Your task to perform on an android device: allow cookies in the chrome app Image 0: 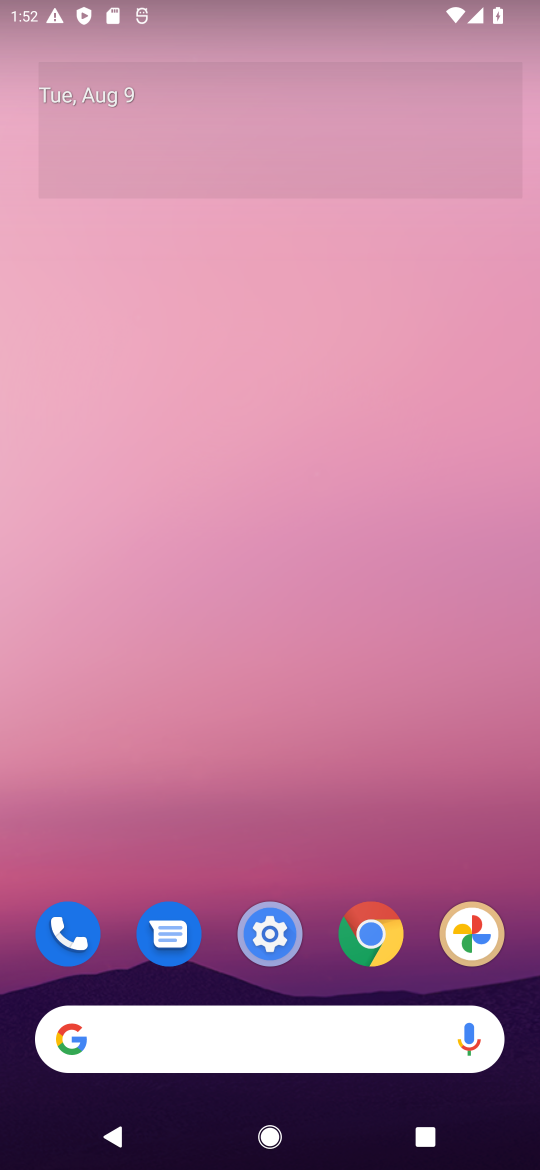
Step 0: click (355, 932)
Your task to perform on an android device: allow cookies in the chrome app Image 1: 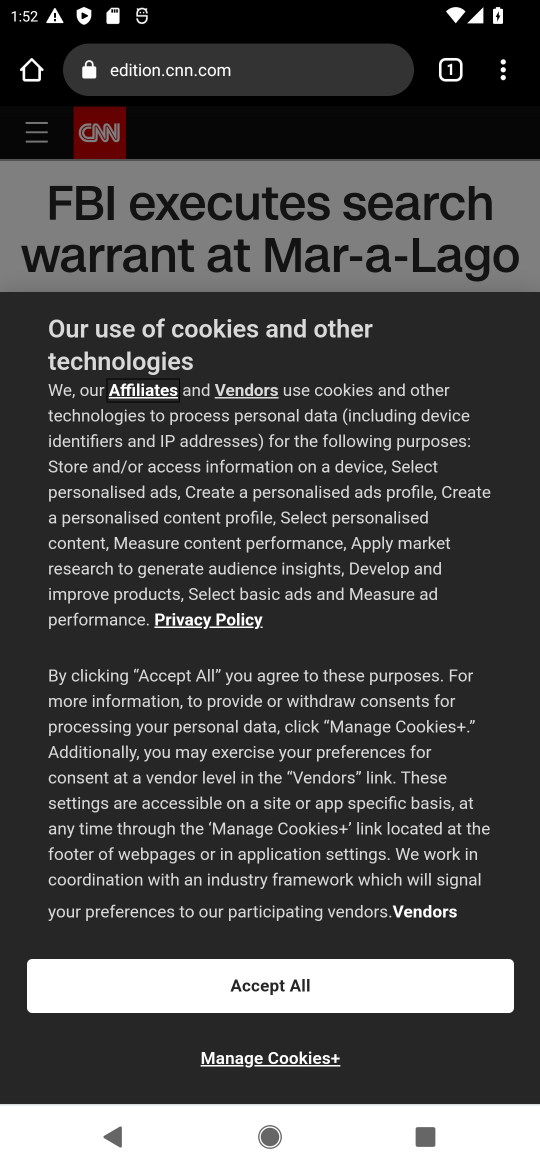
Step 1: click (514, 83)
Your task to perform on an android device: allow cookies in the chrome app Image 2: 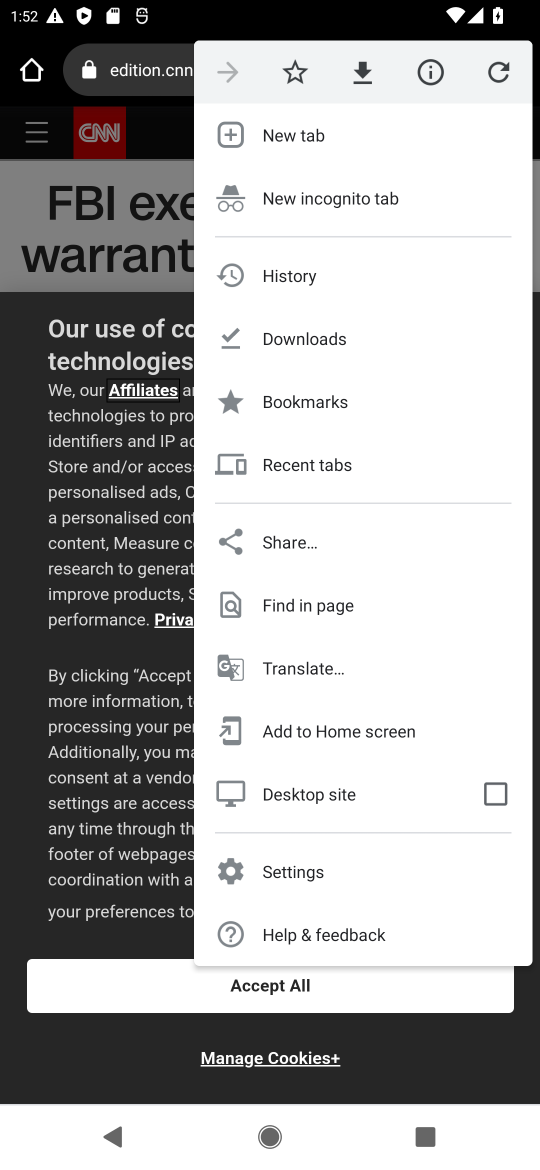
Step 2: click (306, 850)
Your task to perform on an android device: allow cookies in the chrome app Image 3: 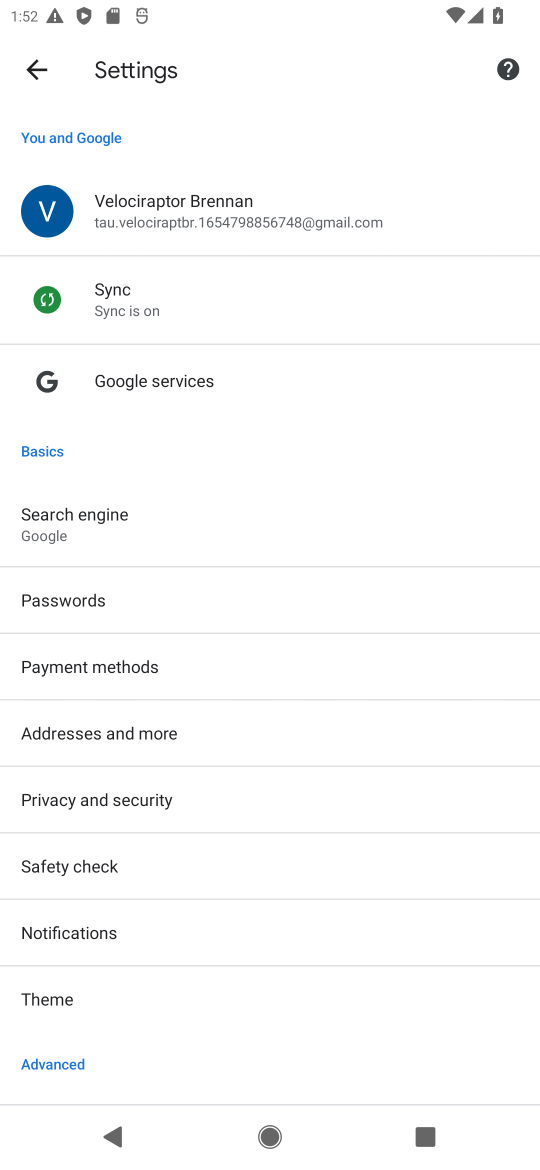
Step 3: drag from (195, 947) to (195, 523)
Your task to perform on an android device: allow cookies in the chrome app Image 4: 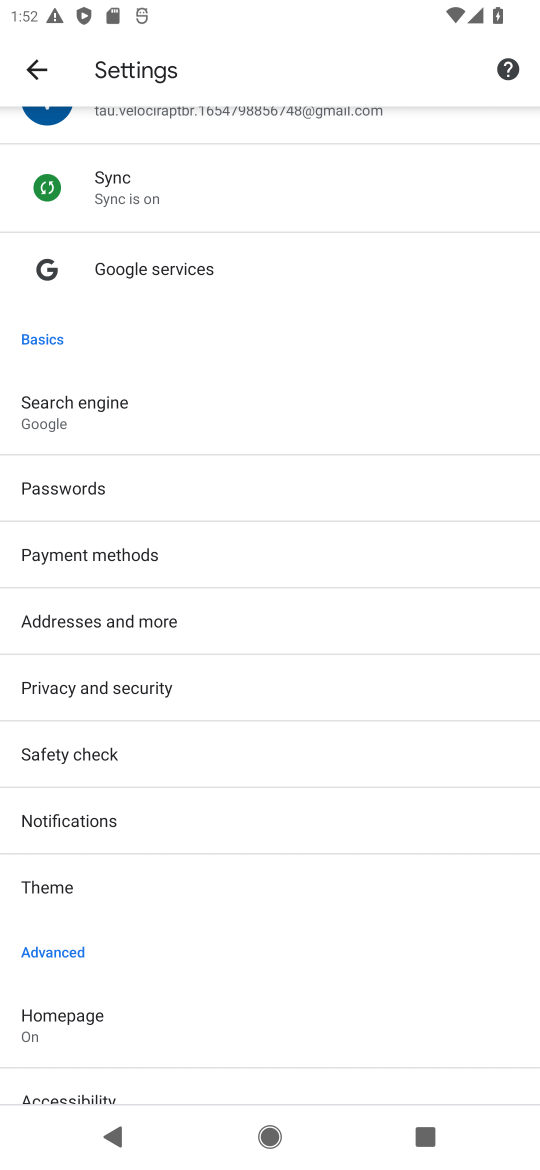
Step 4: drag from (185, 1033) to (220, 588)
Your task to perform on an android device: allow cookies in the chrome app Image 5: 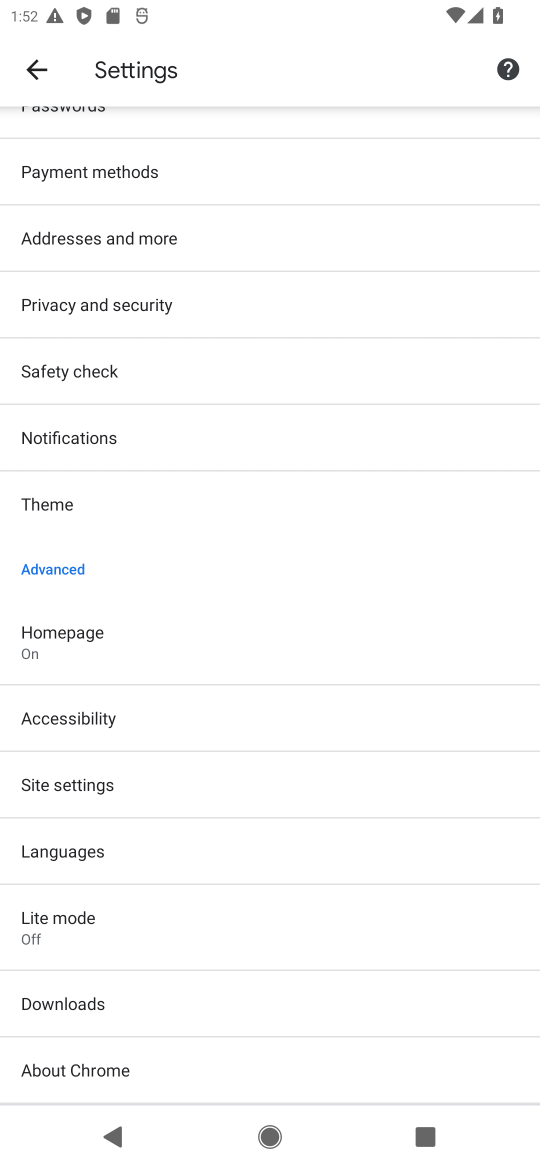
Step 5: click (194, 772)
Your task to perform on an android device: allow cookies in the chrome app Image 6: 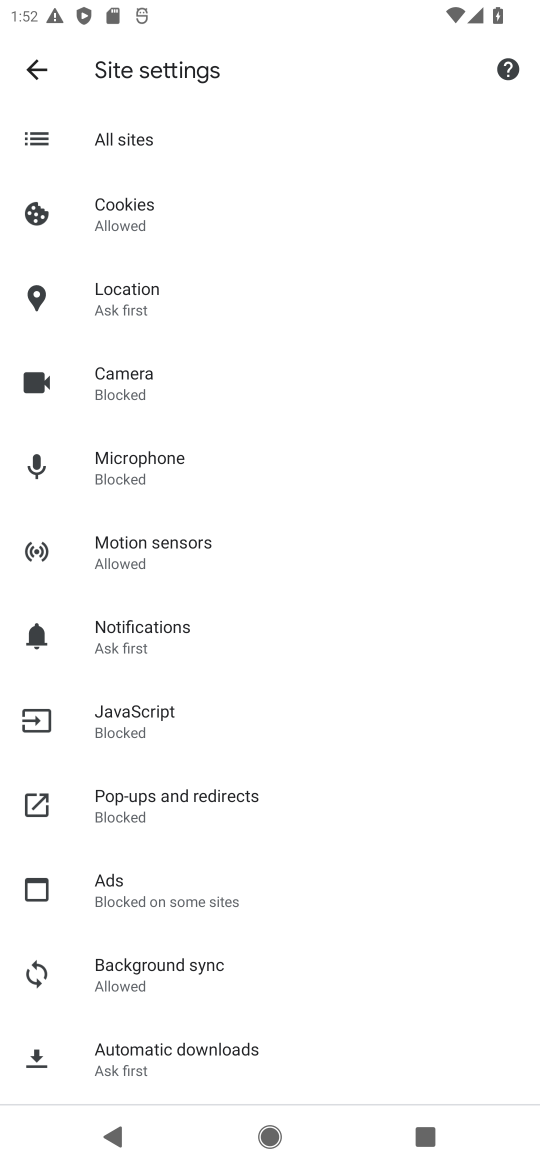
Step 6: task complete